Your task to perform on an android device: turn on data saver in the chrome app Image 0: 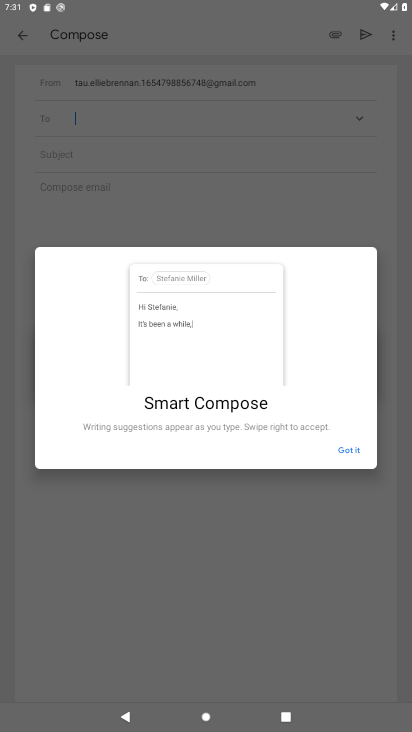
Step 0: press home button
Your task to perform on an android device: turn on data saver in the chrome app Image 1: 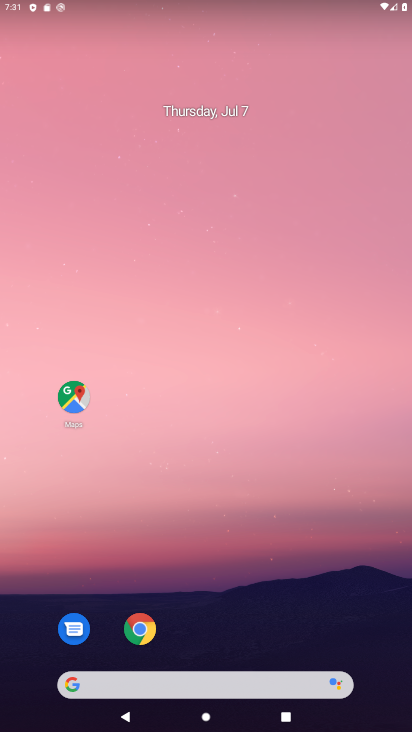
Step 1: drag from (346, 633) to (364, 264)
Your task to perform on an android device: turn on data saver in the chrome app Image 2: 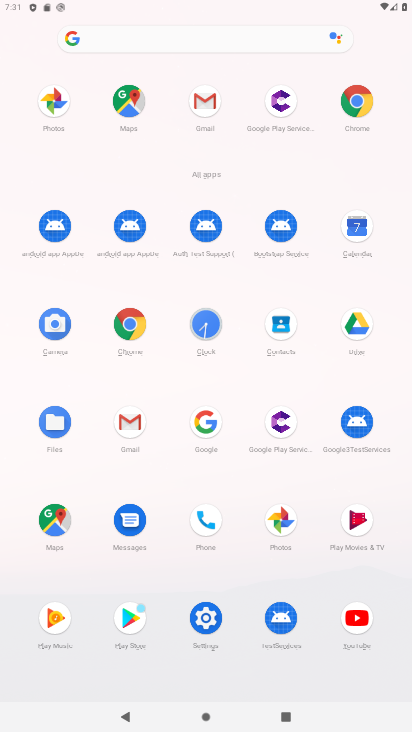
Step 2: click (130, 321)
Your task to perform on an android device: turn on data saver in the chrome app Image 3: 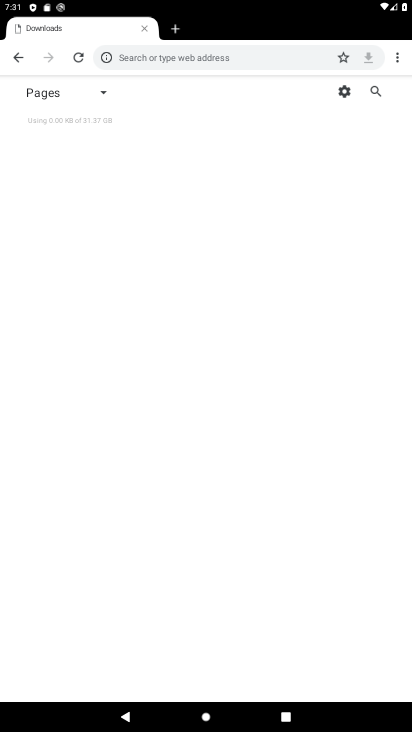
Step 3: click (394, 58)
Your task to perform on an android device: turn on data saver in the chrome app Image 4: 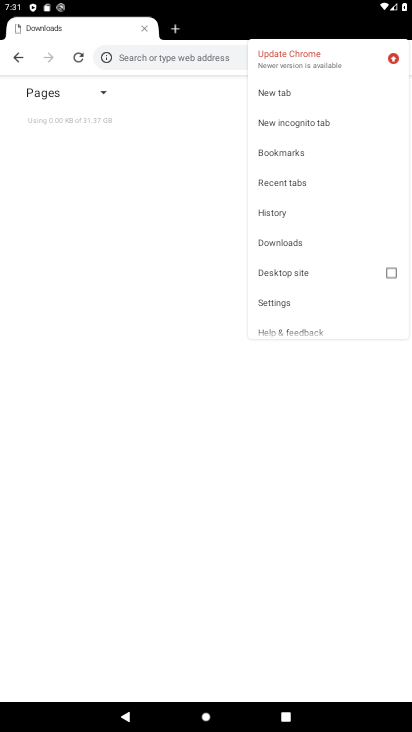
Step 4: click (303, 302)
Your task to perform on an android device: turn on data saver in the chrome app Image 5: 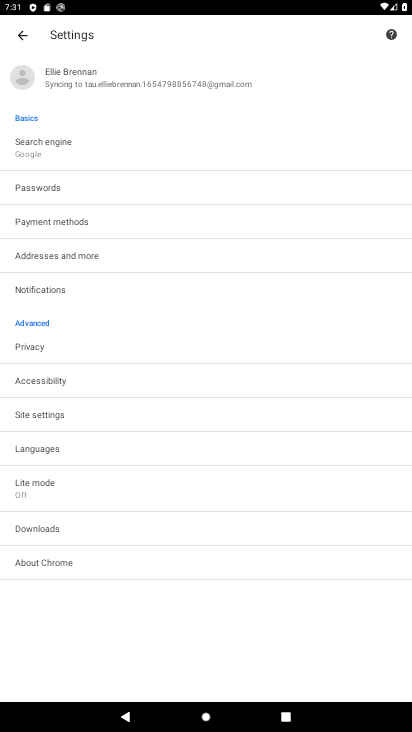
Step 5: click (226, 494)
Your task to perform on an android device: turn on data saver in the chrome app Image 6: 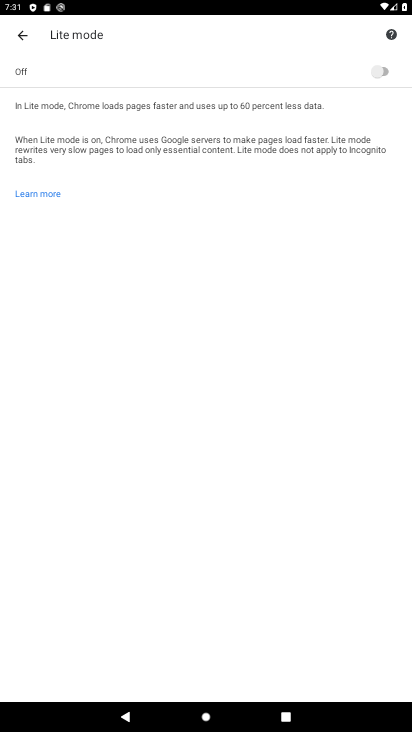
Step 6: click (380, 75)
Your task to perform on an android device: turn on data saver in the chrome app Image 7: 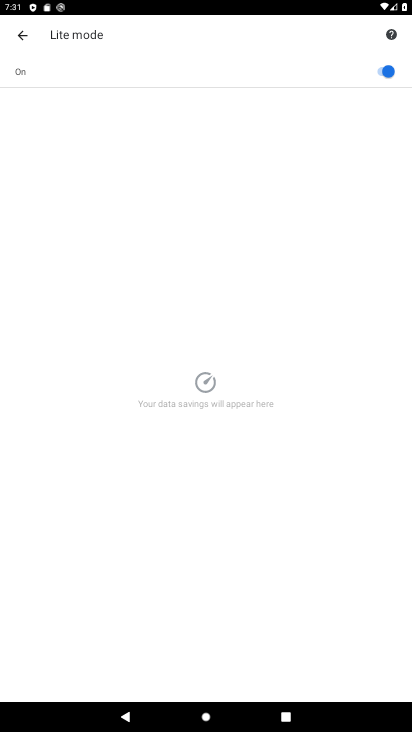
Step 7: task complete